Your task to perform on an android device: Search for "jbl charge 4" on walmart, select the first entry, add it to the cart, then select checkout. Image 0: 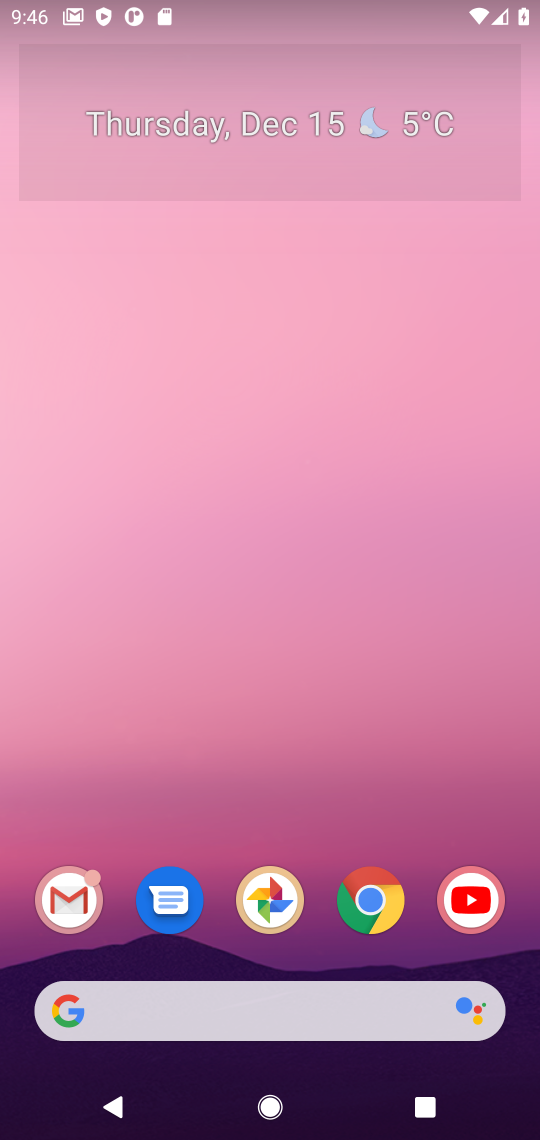
Step 0: click (363, 899)
Your task to perform on an android device: Search for "jbl charge 4" on walmart, select the first entry, add it to the cart, then select checkout. Image 1: 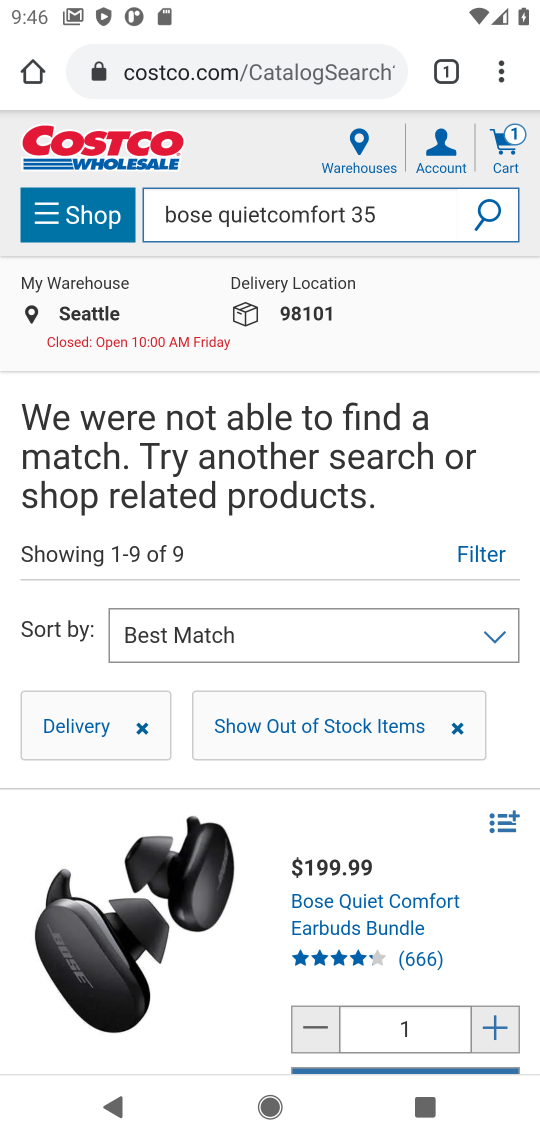
Step 1: click (221, 83)
Your task to perform on an android device: Search for "jbl charge 4" on walmart, select the first entry, add it to the cart, then select checkout. Image 2: 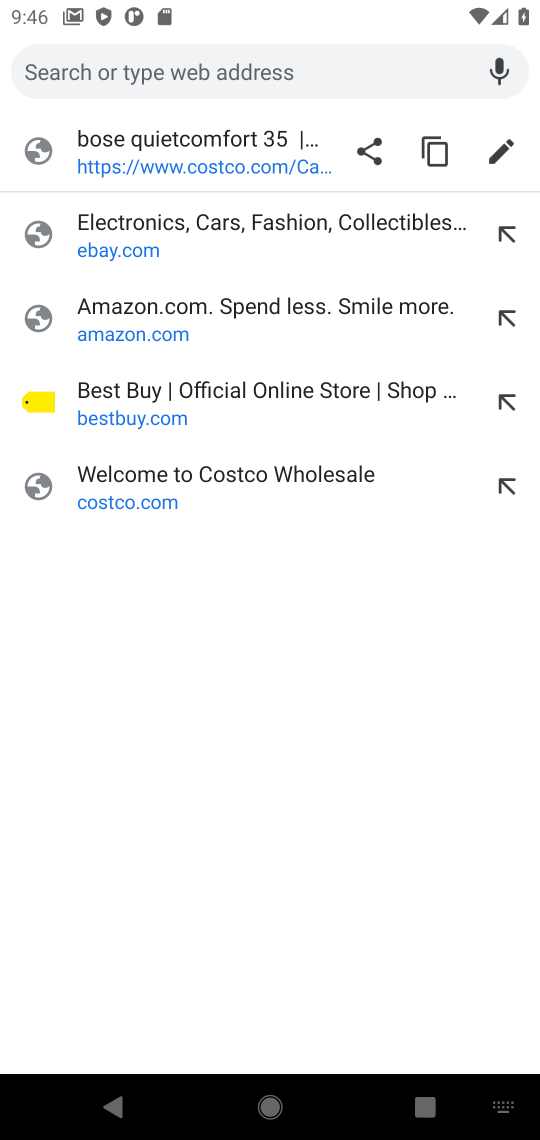
Step 2: type "walmart"
Your task to perform on an android device: Search for "jbl charge 4" on walmart, select the first entry, add it to the cart, then select checkout. Image 3: 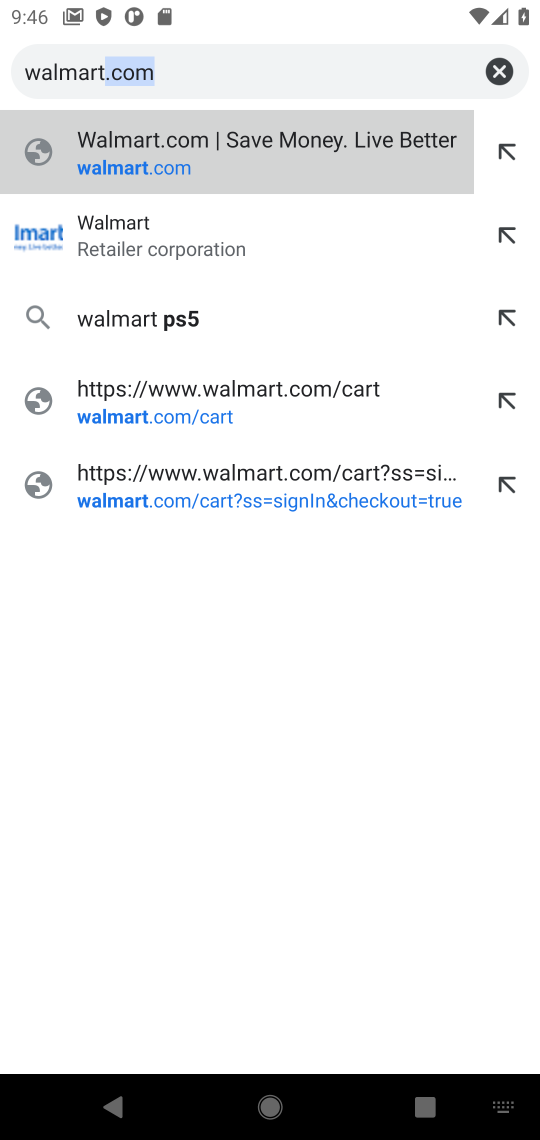
Step 3: click (206, 164)
Your task to perform on an android device: Search for "jbl charge 4" on walmart, select the first entry, add it to the cart, then select checkout. Image 4: 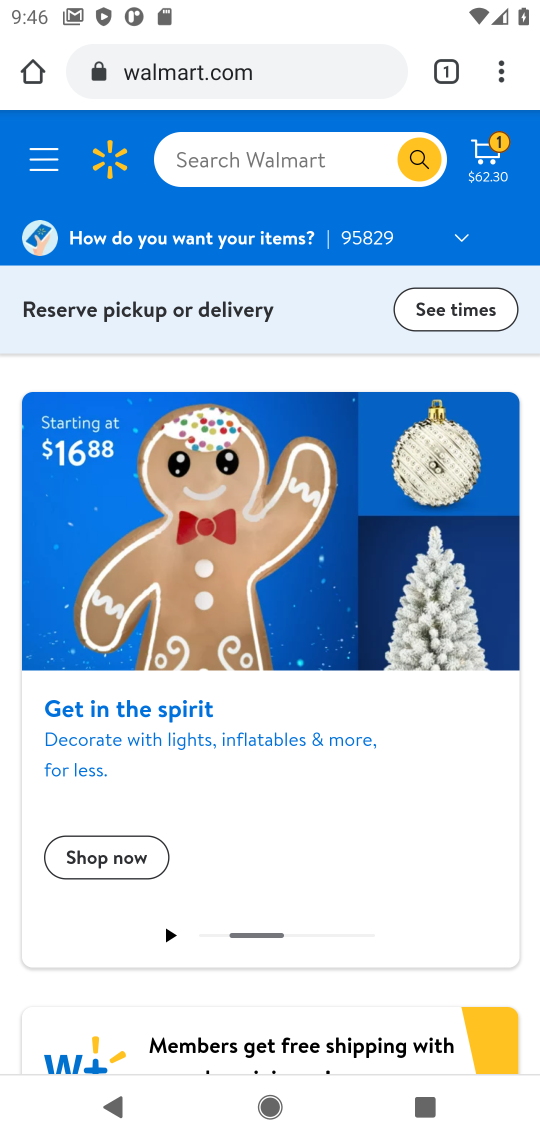
Step 4: click (257, 167)
Your task to perform on an android device: Search for "jbl charge 4" on walmart, select the first entry, add it to the cart, then select checkout. Image 5: 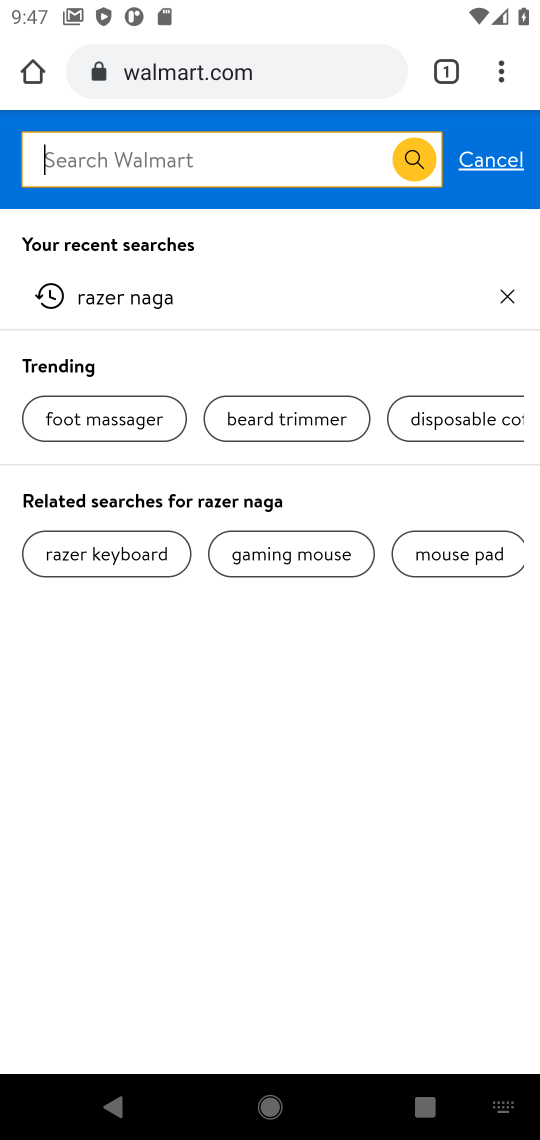
Step 5: type "jbl charge 4"
Your task to perform on an android device: Search for "jbl charge 4" on walmart, select the first entry, add it to the cart, then select checkout. Image 6: 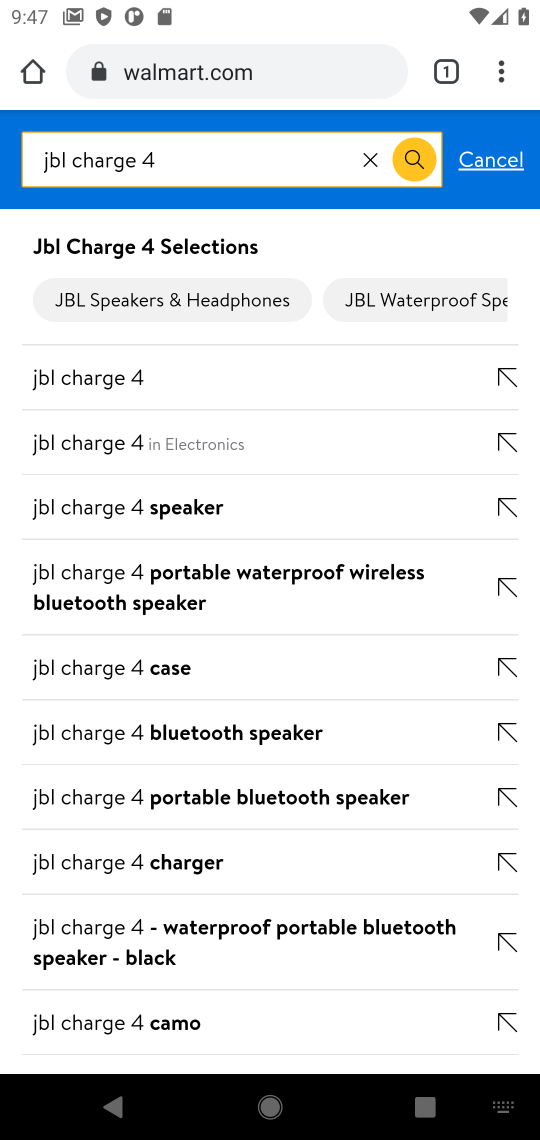
Step 6: click (423, 155)
Your task to perform on an android device: Search for "jbl charge 4" on walmart, select the first entry, add it to the cart, then select checkout. Image 7: 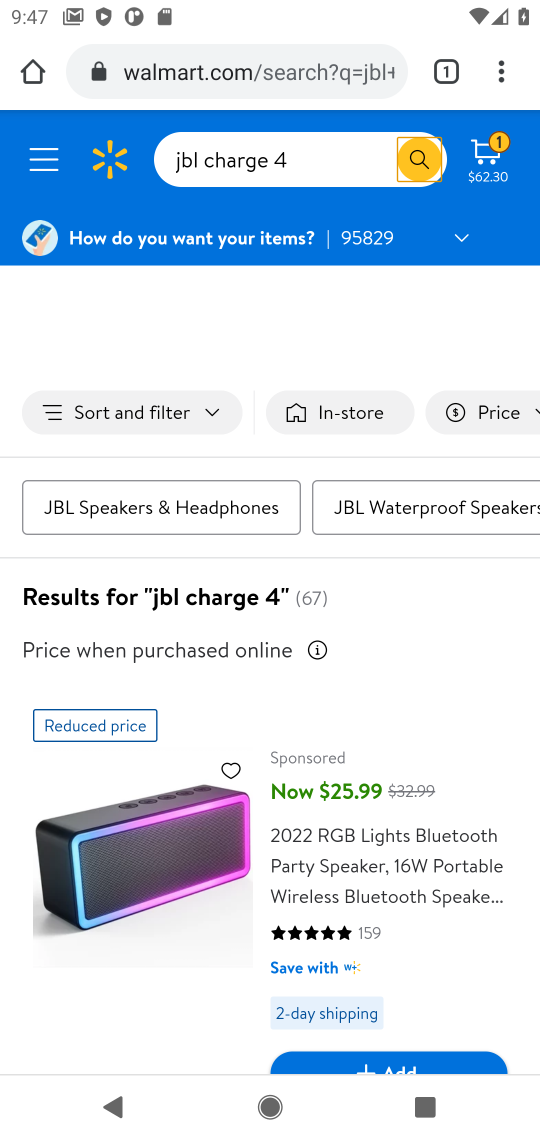
Step 7: drag from (339, 861) to (243, 310)
Your task to perform on an android device: Search for "jbl charge 4" on walmart, select the first entry, add it to the cart, then select checkout. Image 8: 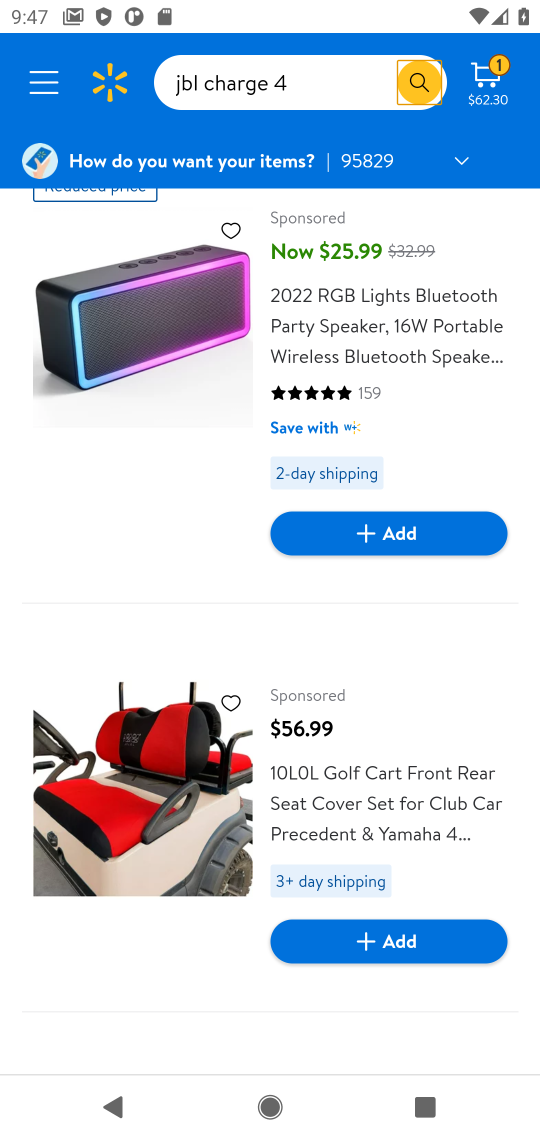
Step 8: drag from (386, 699) to (289, 244)
Your task to perform on an android device: Search for "jbl charge 4" on walmart, select the first entry, add it to the cart, then select checkout. Image 9: 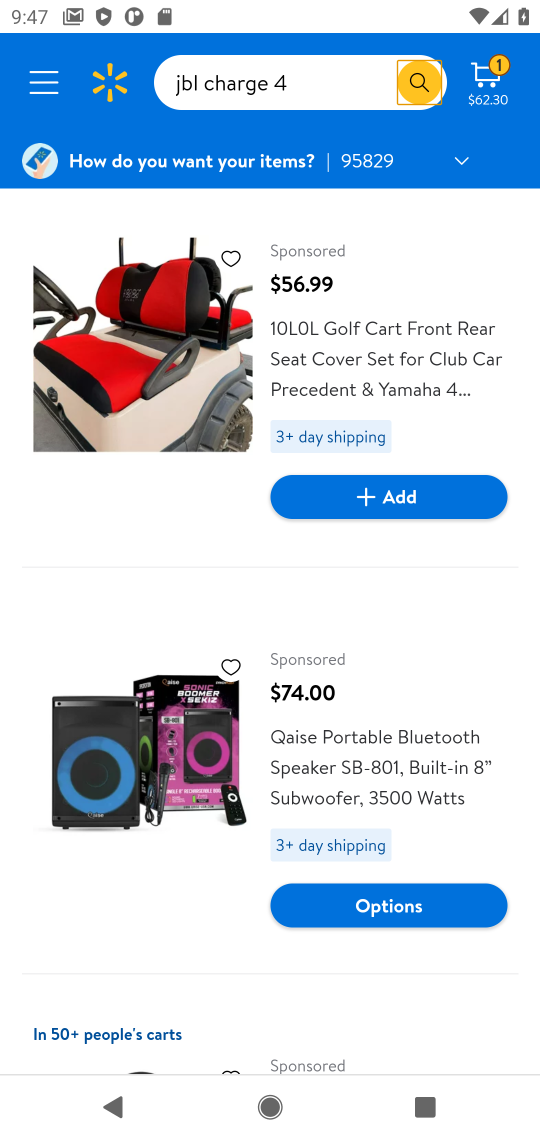
Step 9: drag from (356, 763) to (329, 391)
Your task to perform on an android device: Search for "jbl charge 4" on walmart, select the first entry, add it to the cart, then select checkout. Image 10: 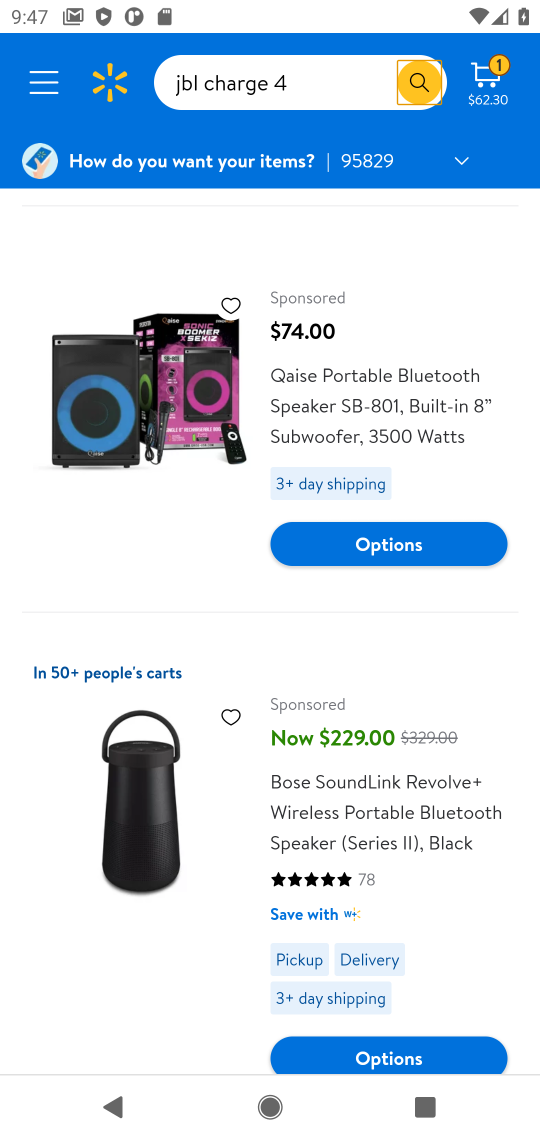
Step 10: drag from (365, 830) to (262, 241)
Your task to perform on an android device: Search for "jbl charge 4" on walmart, select the first entry, add it to the cart, then select checkout. Image 11: 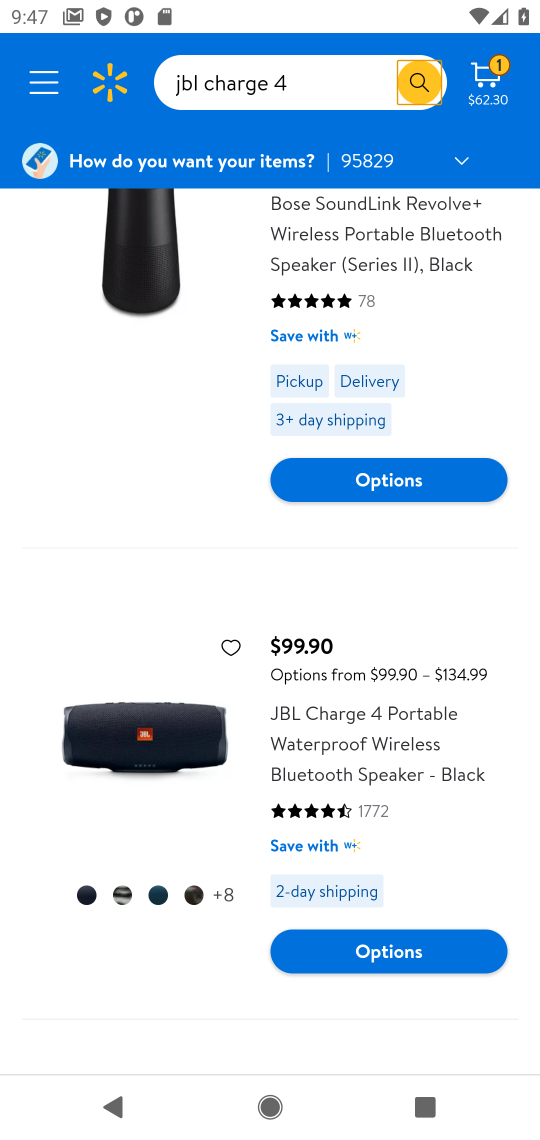
Step 11: click (365, 740)
Your task to perform on an android device: Search for "jbl charge 4" on walmart, select the first entry, add it to the cart, then select checkout. Image 12: 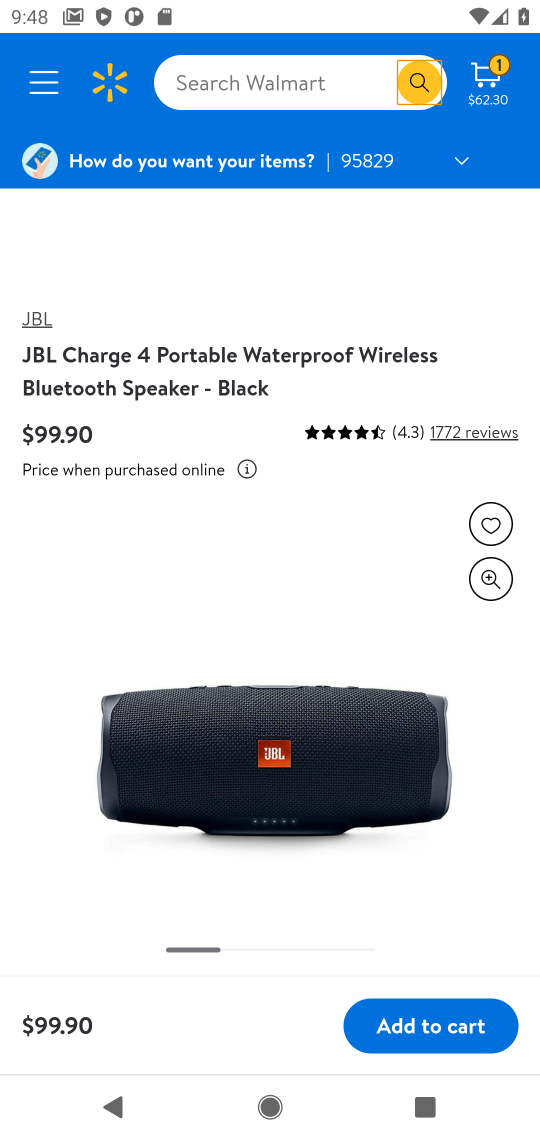
Step 12: click (407, 1028)
Your task to perform on an android device: Search for "jbl charge 4" on walmart, select the first entry, add it to the cart, then select checkout. Image 13: 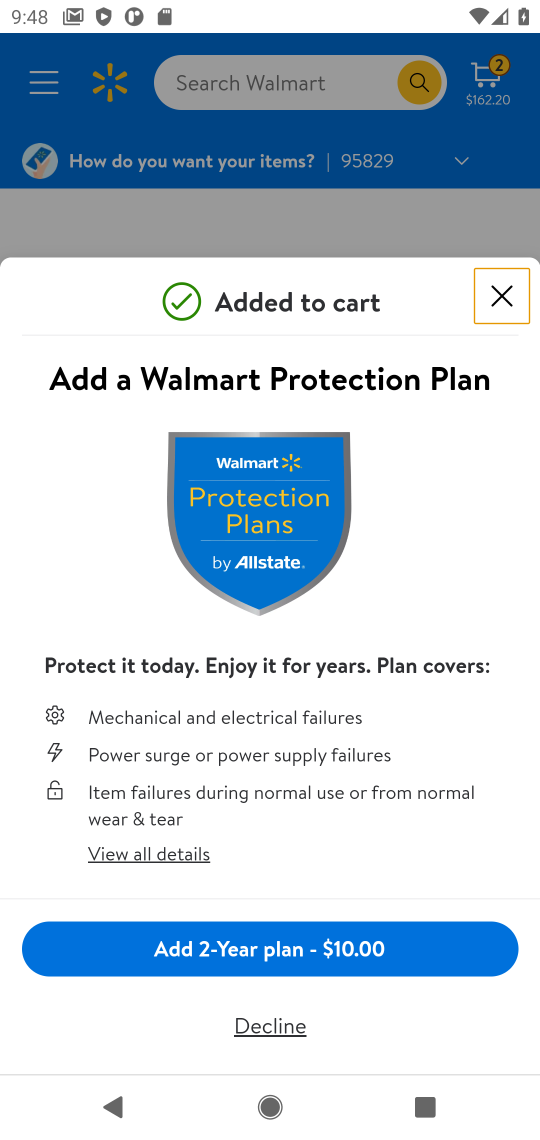
Step 13: click (335, 954)
Your task to perform on an android device: Search for "jbl charge 4" on walmart, select the first entry, add it to the cart, then select checkout. Image 14: 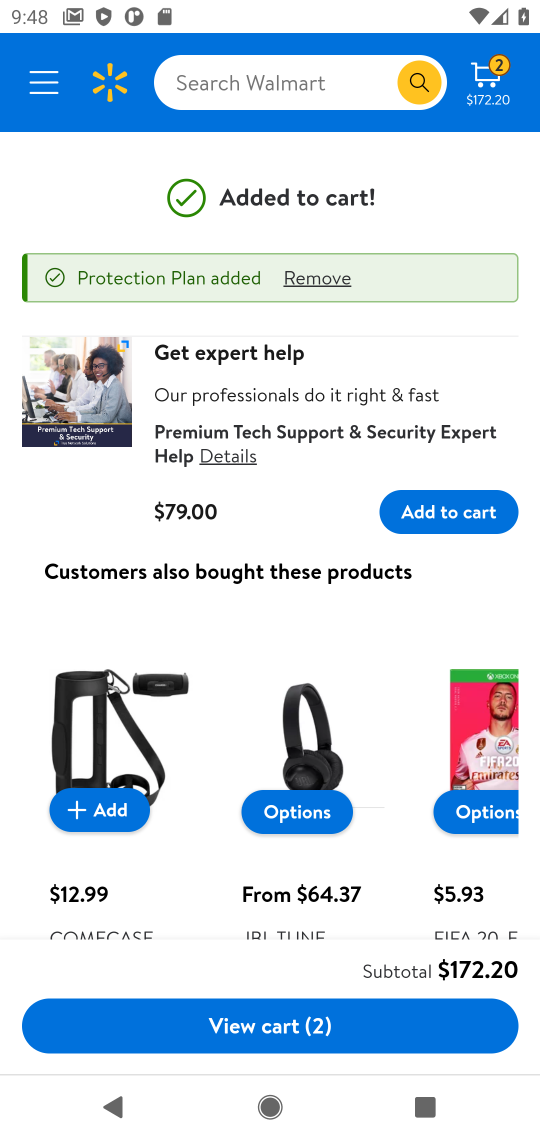
Step 14: click (290, 1025)
Your task to perform on an android device: Search for "jbl charge 4" on walmart, select the first entry, add it to the cart, then select checkout. Image 15: 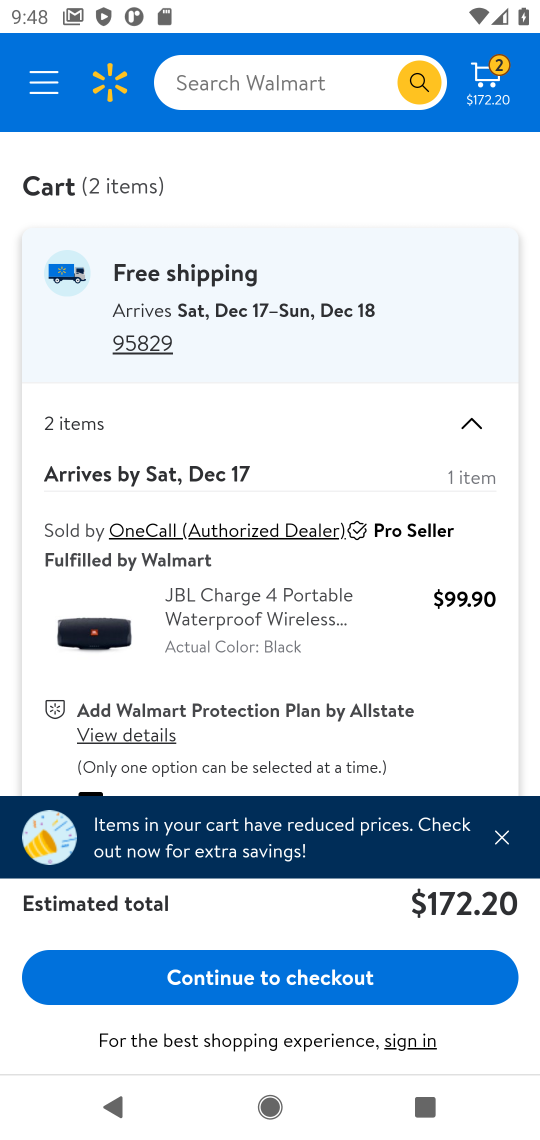
Step 15: click (251, 974)
Your task to perform on an android device: Search for "jbl charge 4" on walmart, select the first entry, add it to the cart, then select checkout. Image 16: 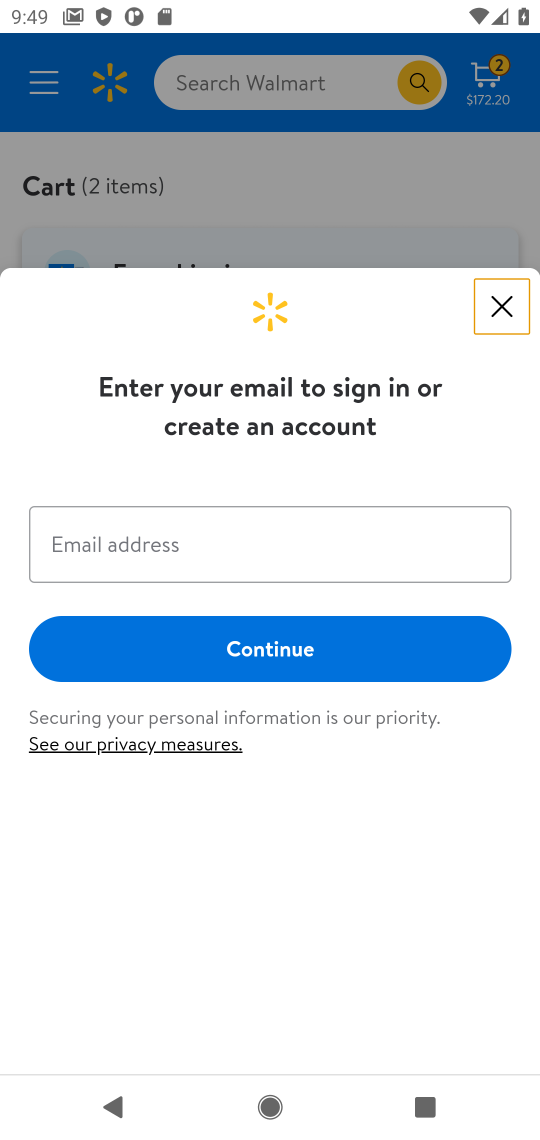
Step 16: click (515, 308)
Your task to perform on an android device: Search for "jbl charge 4" on walmart, select the first entry, add it to the cart, then select checkout. Image 17: 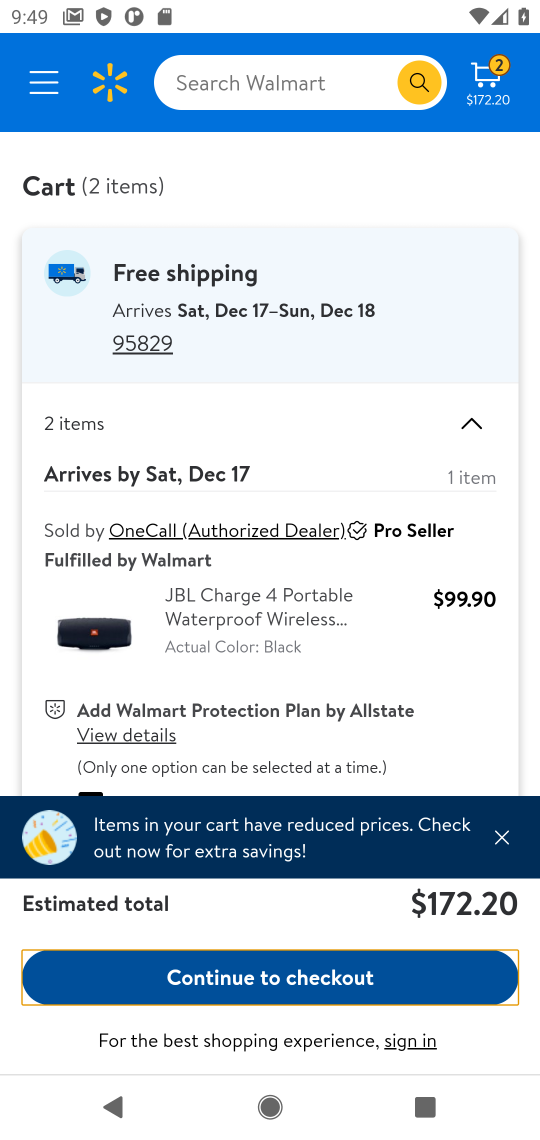
Step 17: click (249, 973)
Your task to perform on an android device: Search for "jbl charge 4" on walmart, select the first entry, add it to the cart, then select checkout. Image 18: 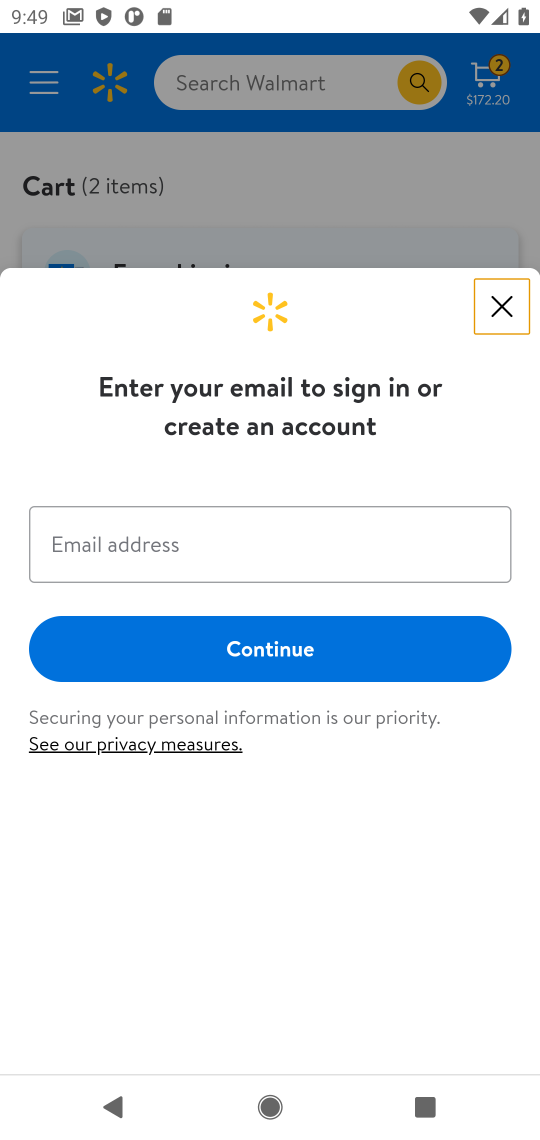
Step 18: task complete